Your task to perform on an android device: show emergency info Image 0: 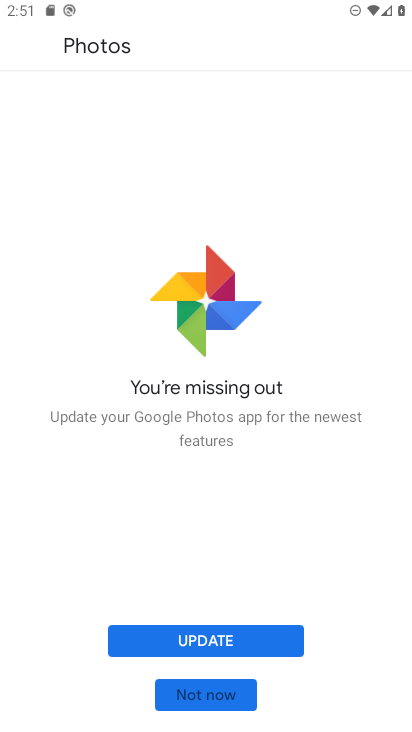
Step 0: press home button
Your task to perform on an android device: show emergency info Image 1: 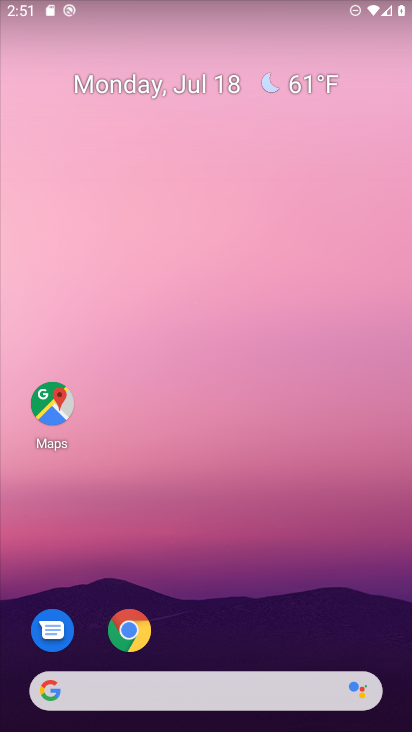
Step 1: drag from (236, 586) to (265, 55)
Your task to perform on an android device: show emergency info Image 2: 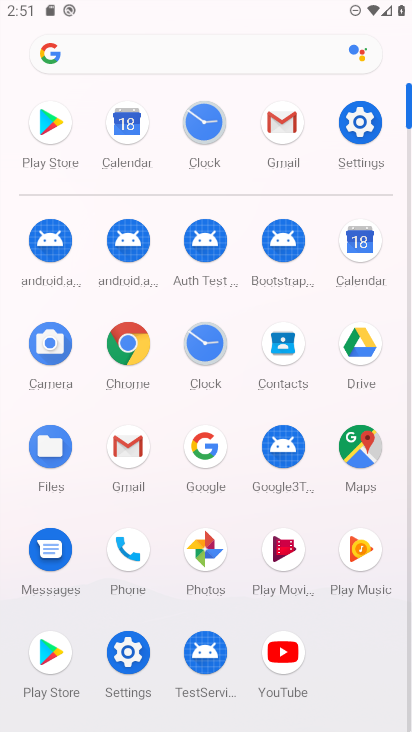
Step 2: click (362, 126)
Your task to perform on an android device: show emergency info Image 3: 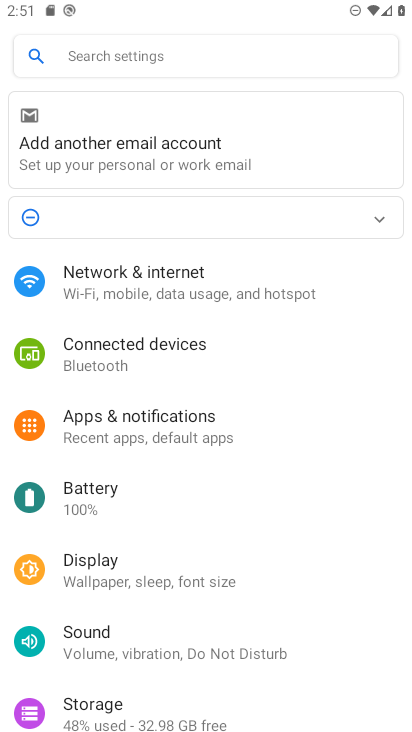
Step 3: drag from (241, 587) to (297, 7)
Your task to perform on an android device: show emergency info Image 4: 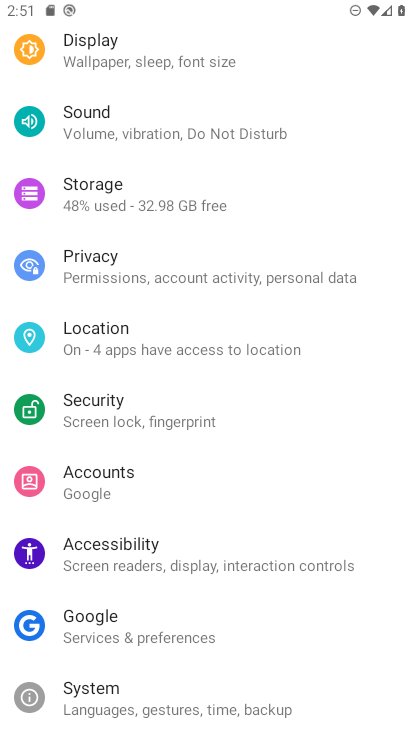
Step 4: drag from (197, 618) to (214, 323)
Your task to perform on an android device: show emergency info Image 5: 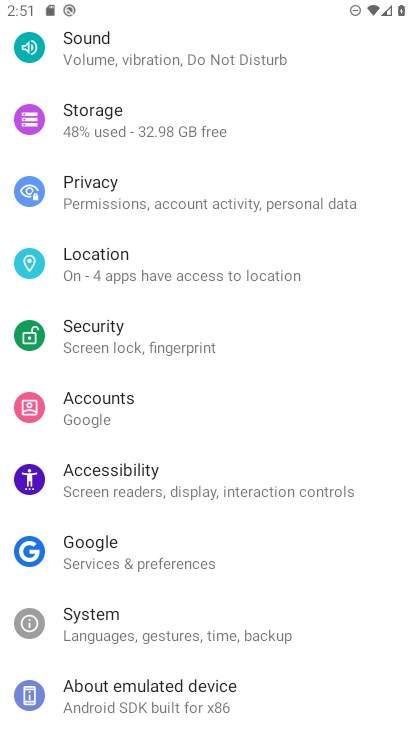
Step 5: click (171, 690)
Your task to perform on an android device: show emergency info Image 6: 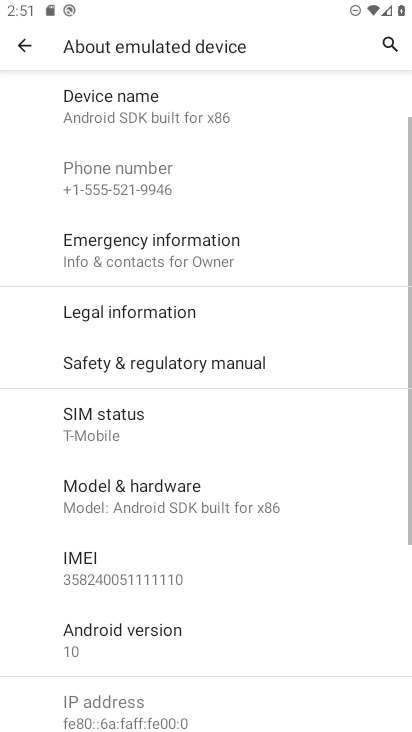
Step 6: click (197, 249)
Your task to perform on an android device: show emergency info Image 7: 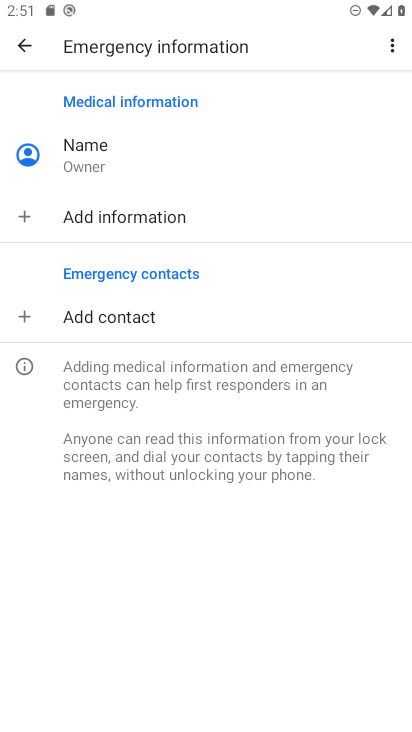
Step 7: task complete